Your task to perform on an android device: turn on translation in the chrome app Image 0: 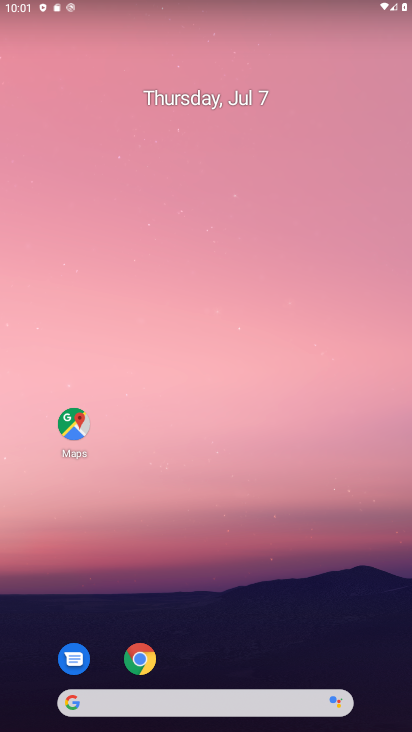
Step 0: drag from (183, 694) to (305, 2)
Your task to perform on an android device: turn on translation in the chrome app Image 1: 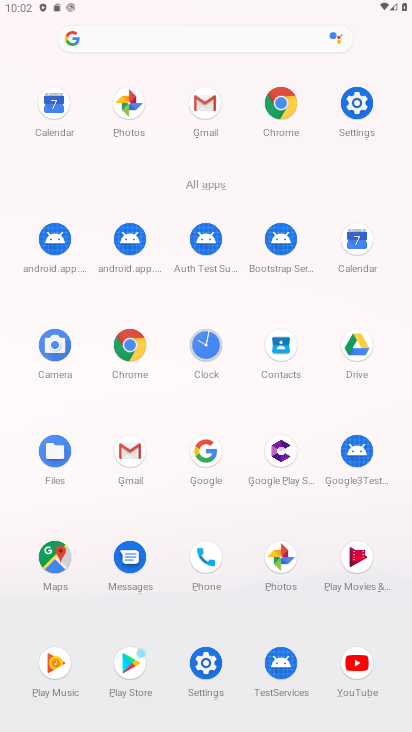
Step 1: click (271, 111)
Your task to perform on an android device: turn on translation in the chrome app Image 2: 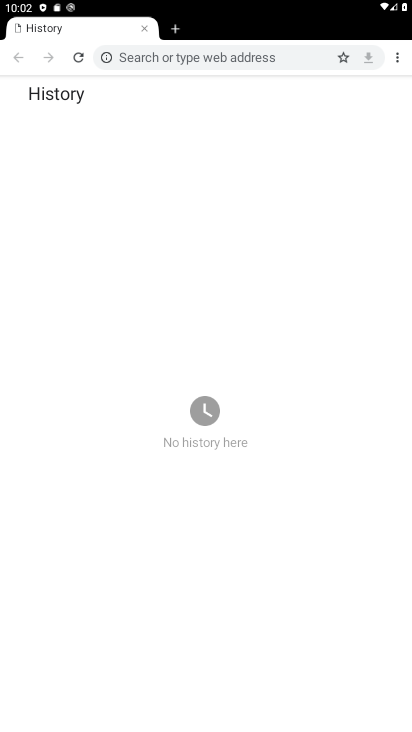
Step 2: drag from (396, 57) to (342, 297)
Your task to perform on an android device: turn on translation in the chrome app Image 3: 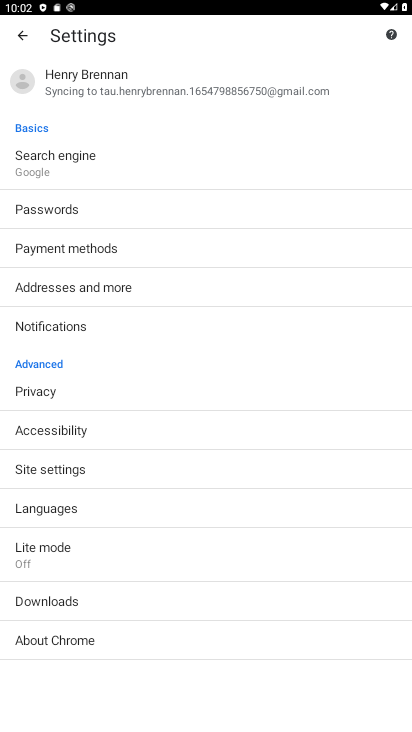
Step 3: click (120, 514)
Your task to perform on an android device: turn on translation in the chrome app Image 4: 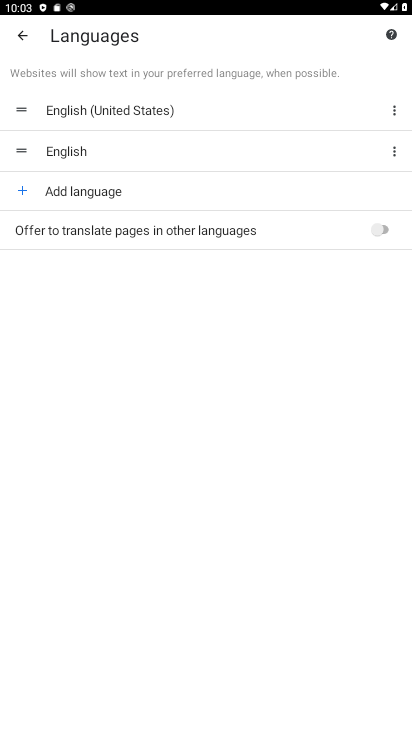
Step 4: click (382, 227)
Your task to perform on an android device: turn on translation in the chrome app Image 5: 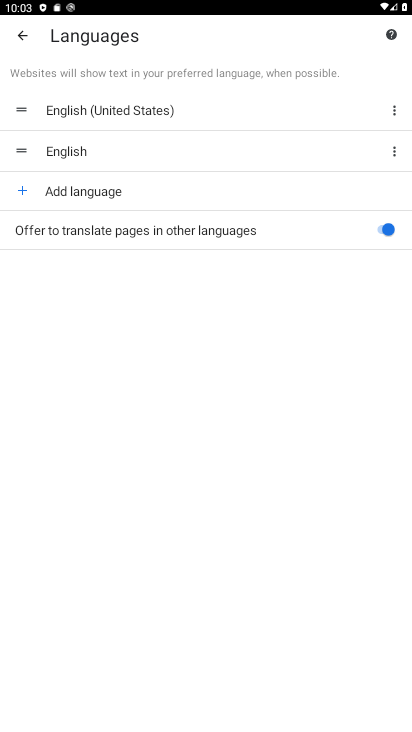
Step 5: task complete